Your task to perform on an android device: Check the weather Image 0: 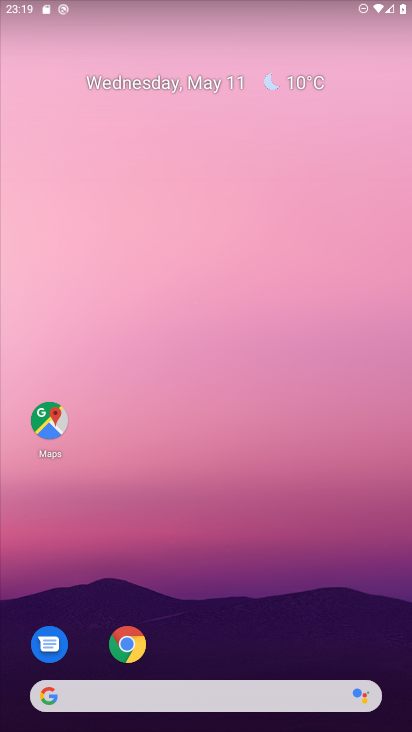
Step 0: click (312, 83)
Your task to perform on an android device: Check the weather Image 1: 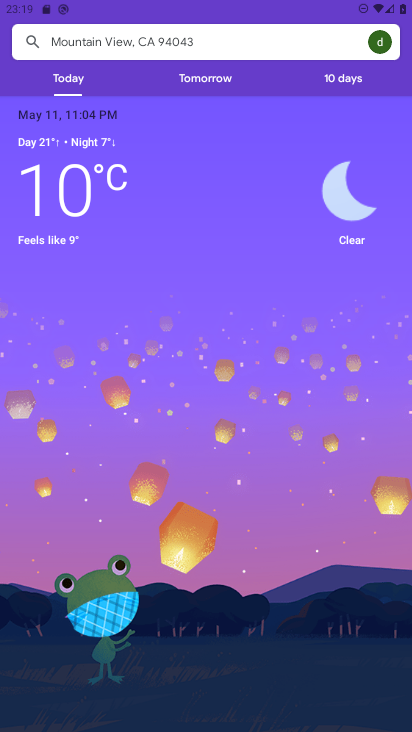
Step 1: task complete